Your task to perform on an android device: Go to Google maps Image 0: 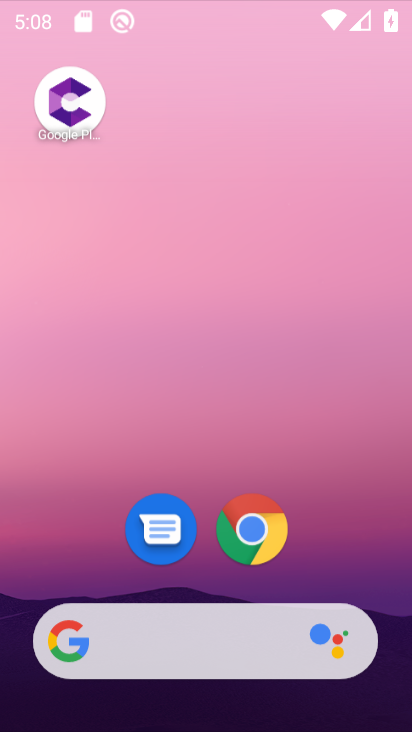
Step 0: press home button
Your task to perform on an android device: Go to Google maps Image 1: 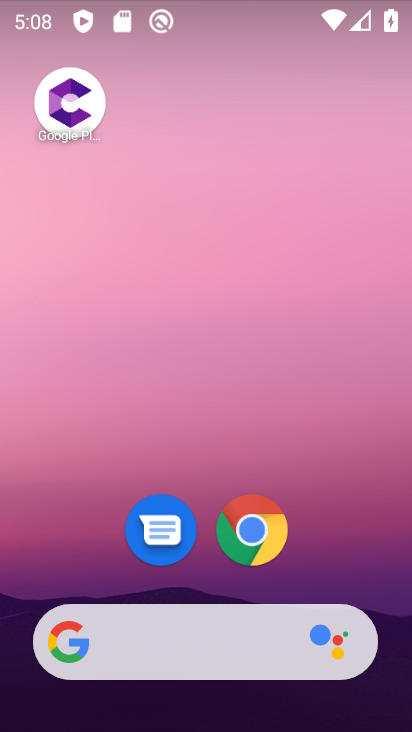
Step 1: drag from (202, 472) to (309, 13)
Your task to perform on an android device: Go to Google maps Image 2: 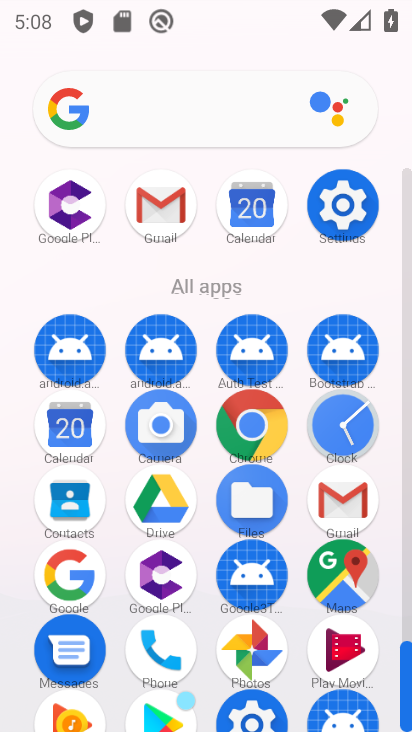
Step 2: click (343, 580)
Your task to perform on an android device: Go to Google maps Image 3: 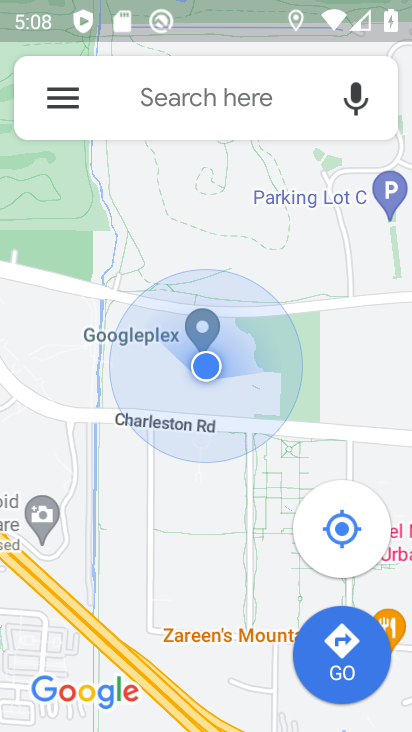
Step 3: task complete